Your task to perform on an android device: find snoozed emails in the gmail app Image 0: 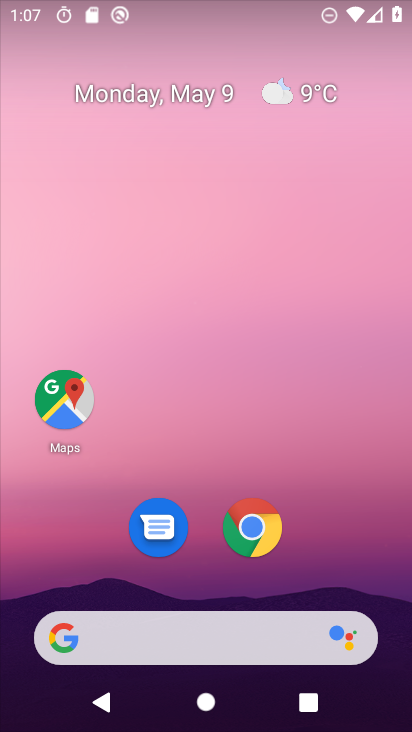
Step 0: drag from (222, 538) to (270, 105)
Your task to perform on an android device: find snoozed emails in the gmail app Image 1: 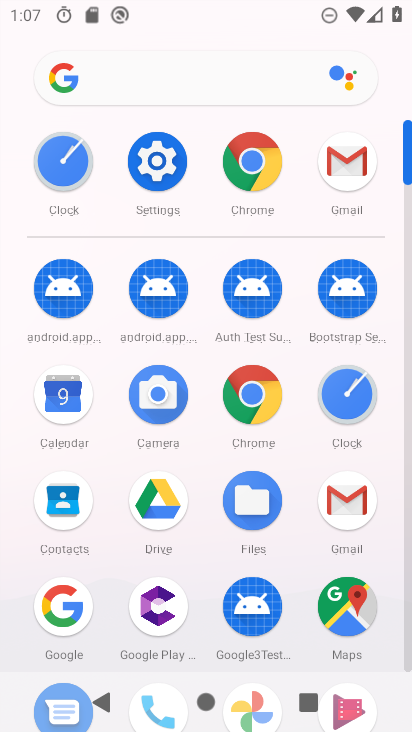
Step 1: click (351, 159)
Your task to perform on an android device: find snoozed emails in the gmail app Image 2: 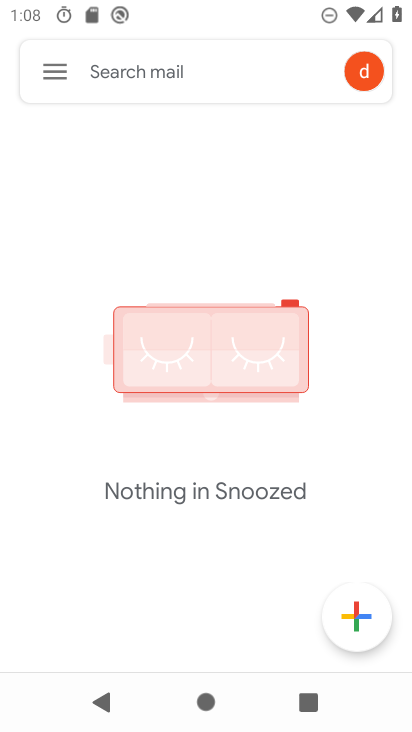
Step 2: task complete